Your task to perform on an android device: install app "Adobe Acrobat Reader" Image 0: 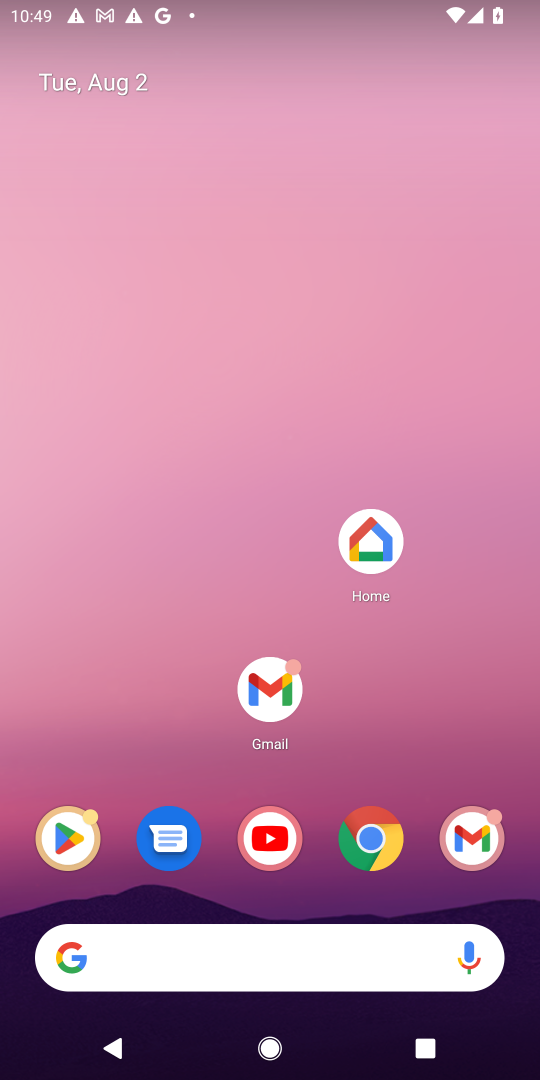
Step 0: press home button
Your task to perform on an android device: install app "Adobe Acrobat Reader" Image 1: 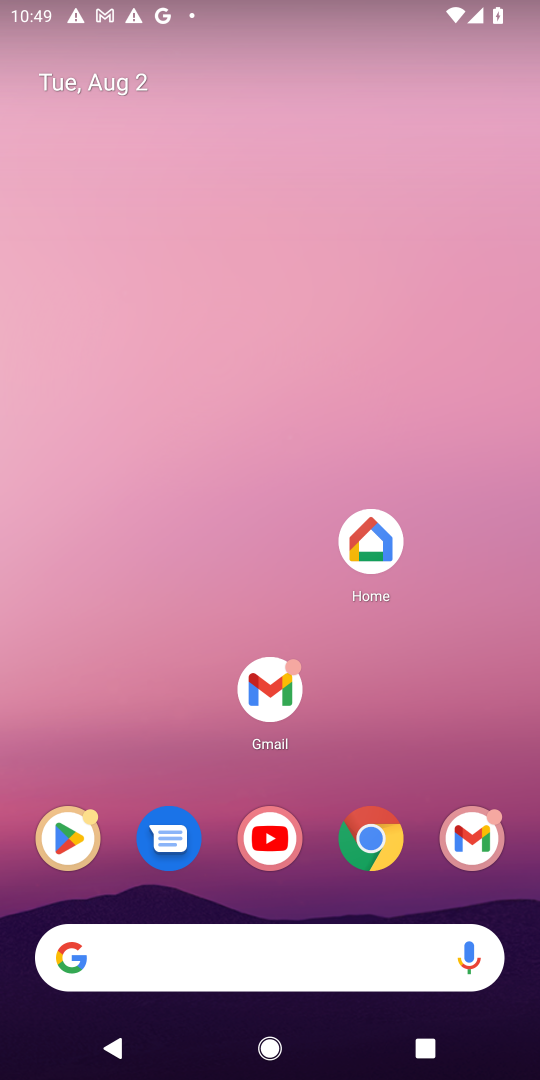
Step 1: drag from (413, 618) to (382, 134)
Your task to perform on an android device: install app "Adobe Acrobat Reader" Image 2: 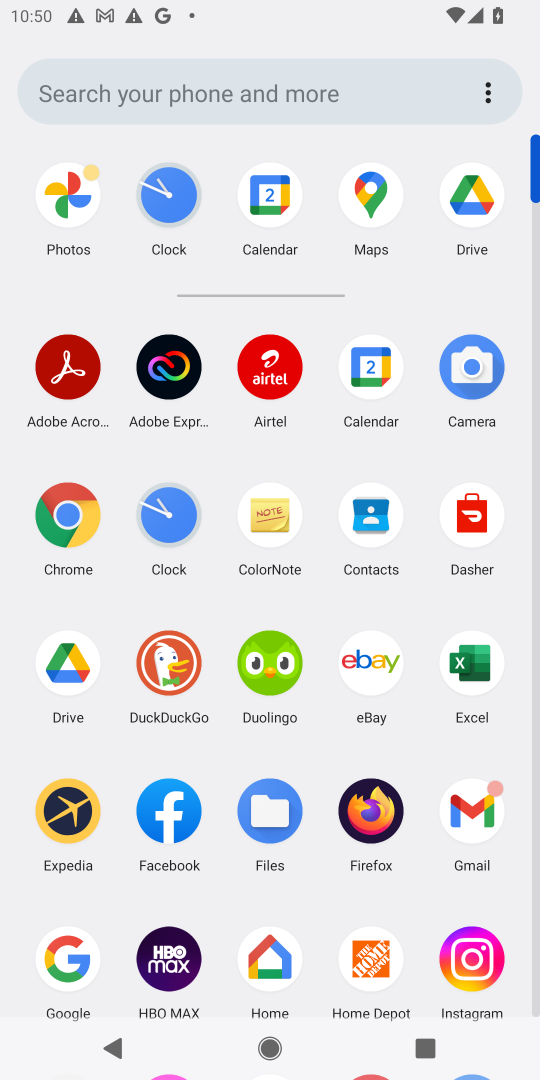
Step 2: drag from (310, 894) to (310, 645)
Your task to perform on an android device: install app "Adobe Acrobat Reader" Image 3: 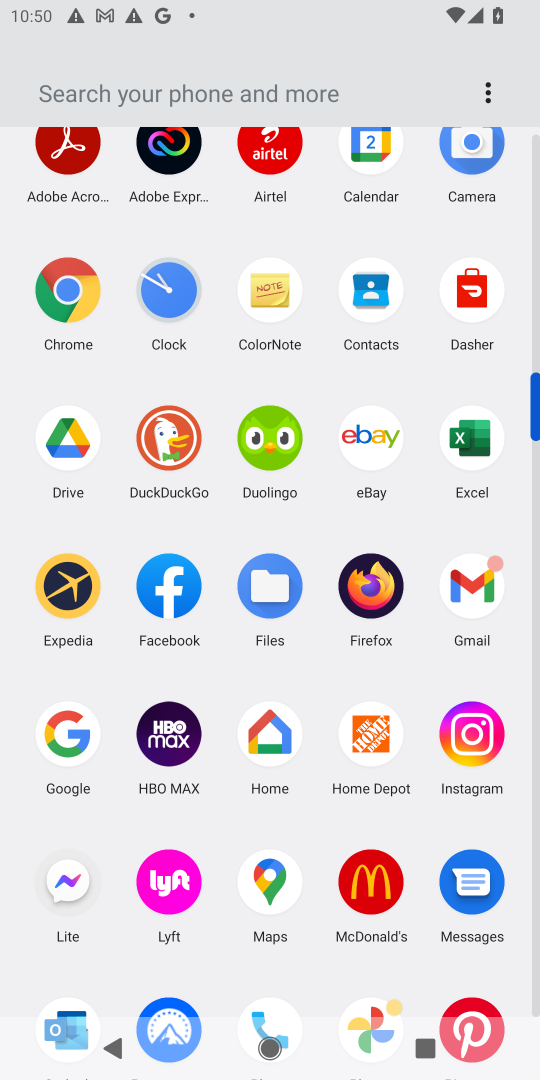
Step 3: drag from (298, 961) to (310, 666)
Your task to perform on an android device: install app "Adobe Acrobat Reader" Image 4: 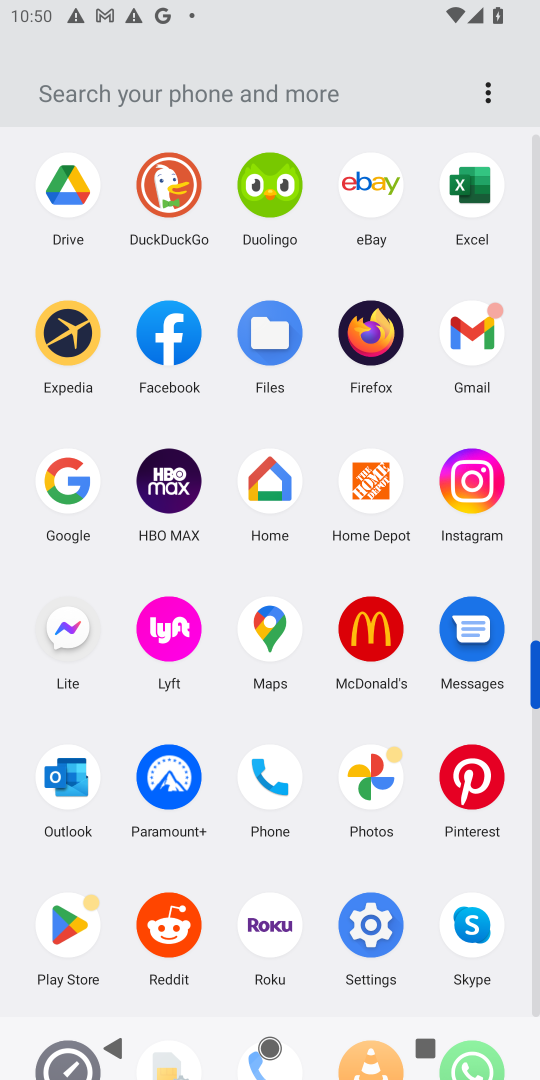
Step 4: click (74, 930)
Your task to perform on an android device: install app "Adobe Acrobat Reader" Image 5: 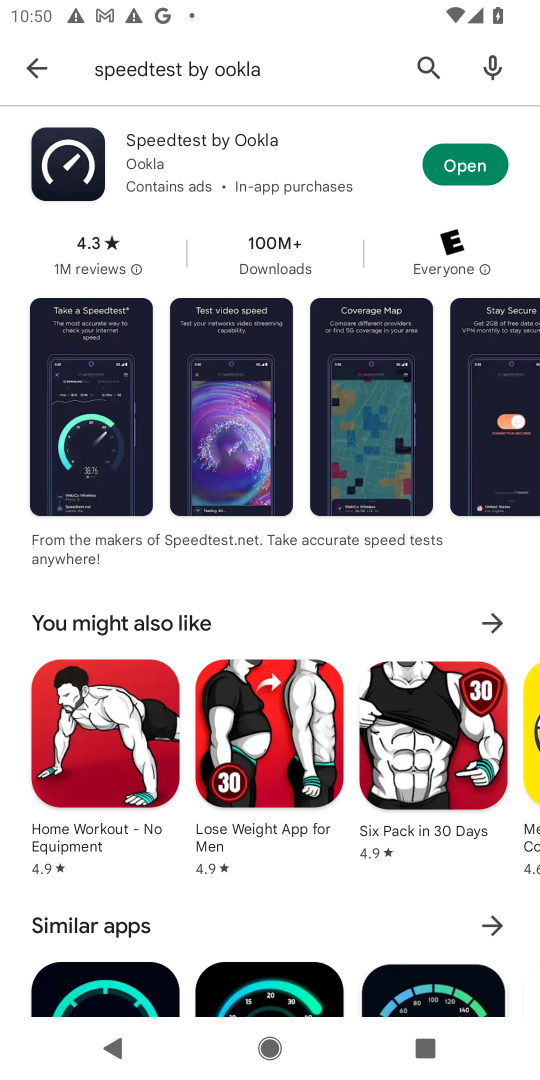
Step 5: click (421, 51)
Your task to perform on an android device: install app "Adobe Acrobat Reader" Image 6: 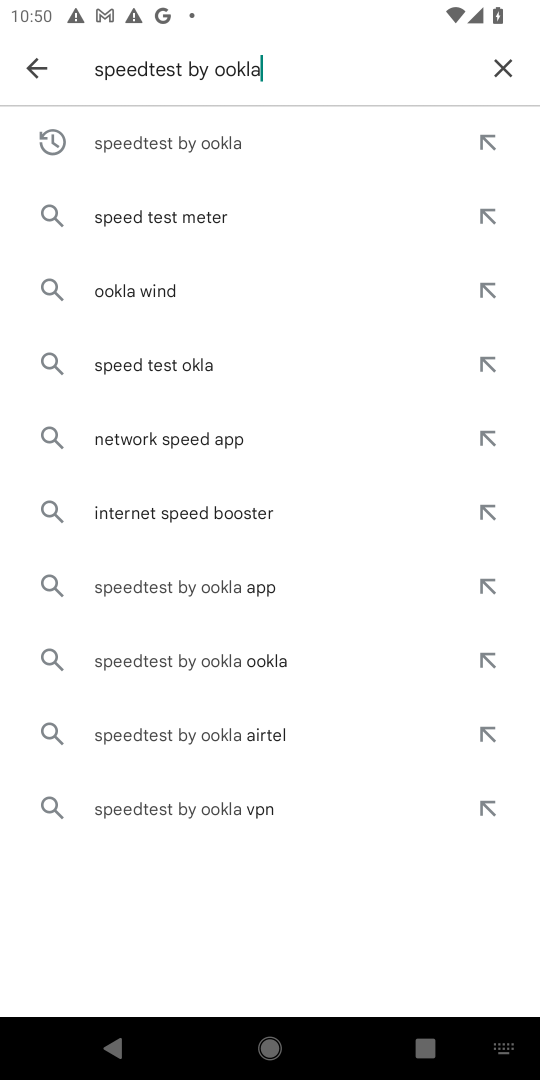
Step 6: click (499, 75)
Your task to perform on an android device: install app "Adobe Acrobat Reader" Image 7: 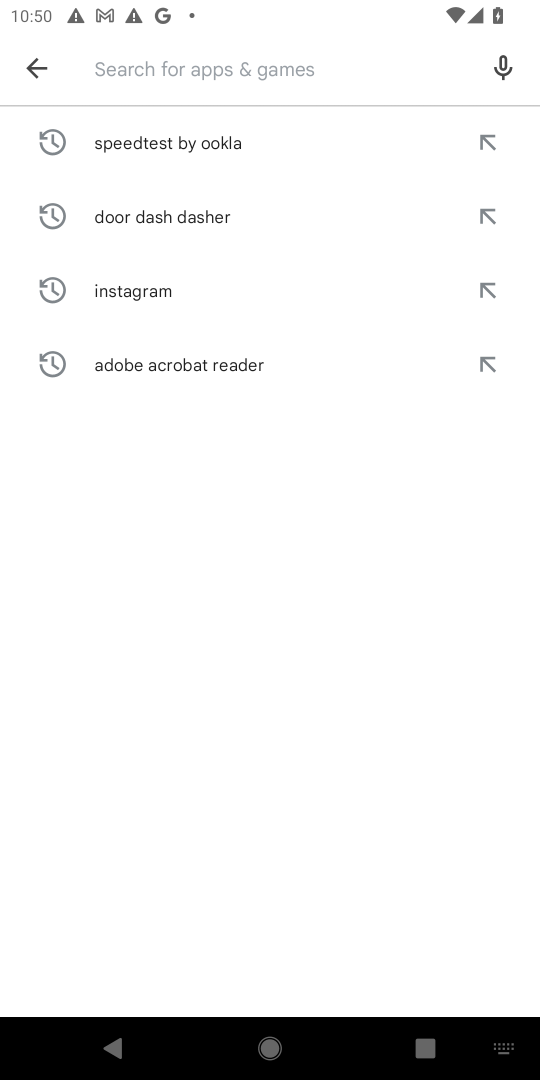
Step 7: type "adobe acrobat reader"
Your task to perform on an android device: install app "Adobe Acrobat Reader" Image 8: 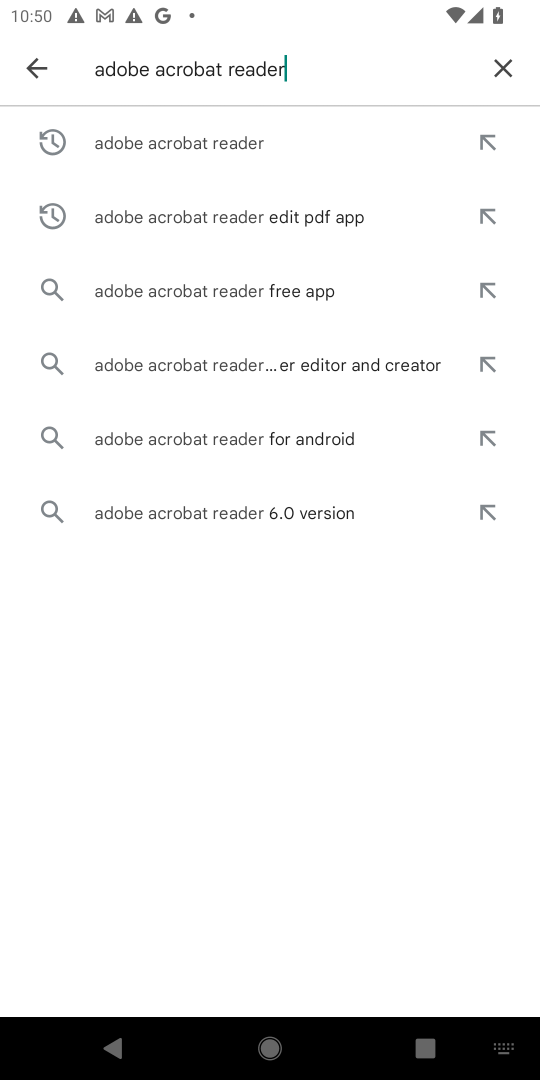
Step 8: click (291, 136)
Your task to perform on an android device: install app "Adobe Acrobat Reader" Image 9: 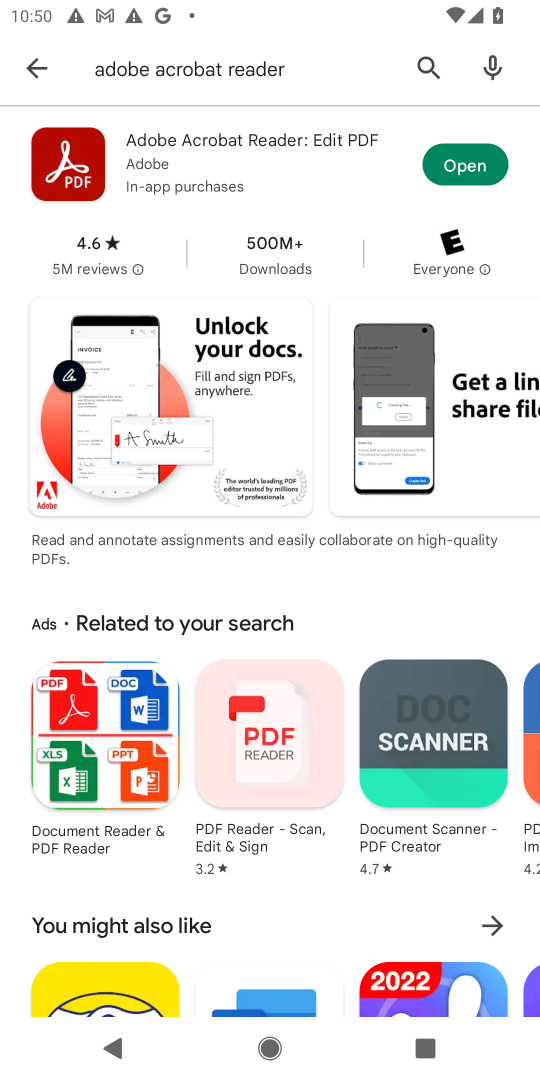
Step 9: task complete